Your task to perform on an android device: allow notifications from all sites in the chrome app Image 0: 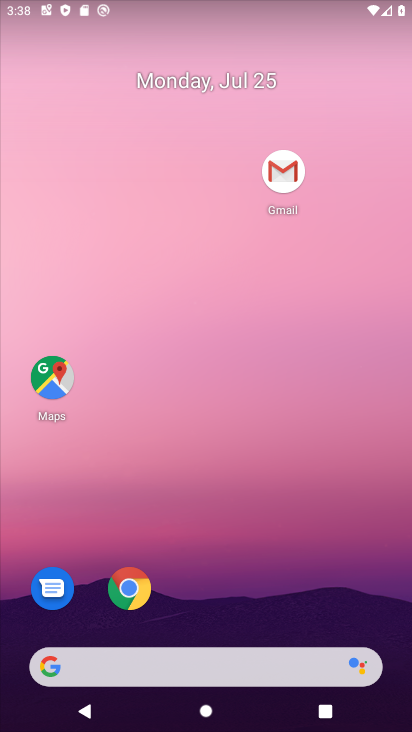
Step 0: drag from (250, 427) to (250, 45)
Your task to perform on an android device: allow notifications from all sites in the chrome app Image 1: 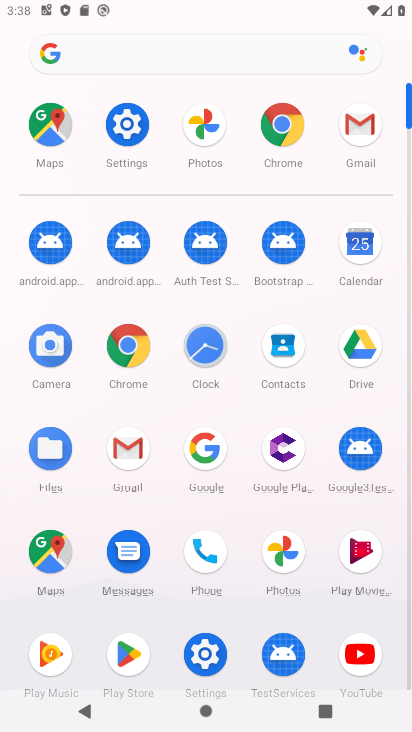
Step 1: click (128, 344)
Your task to perform on an android device: allow notifications from all sites in the chrome app Image 2: 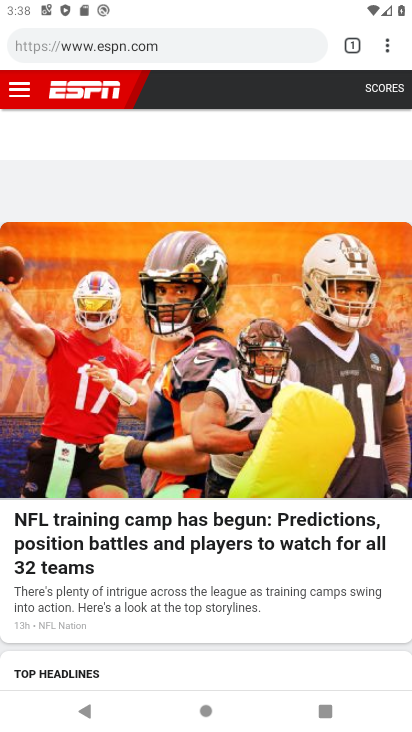
Step 2: drag from (393, 43) to (244, 541)
Your task to perform on an android device: allow notifications from all sites in the chrome app Image 3: 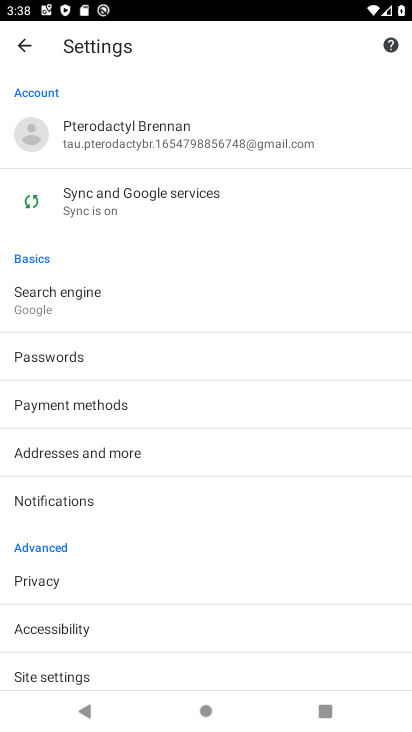
Step 3: drag from (324, 603) to (304, 313)
Your task to perform on an android device: allow notifications from all sites in the chrome app Image 4: 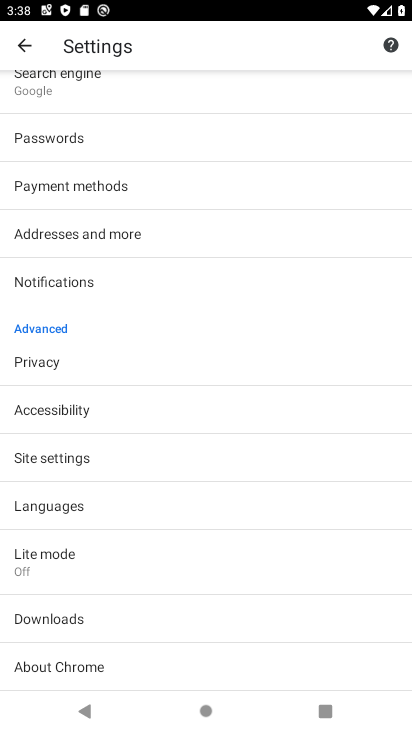
Step 4: click (83, 289)
Your task to perform on an android device: allow notifications from all sites in the chrome app Image 5: 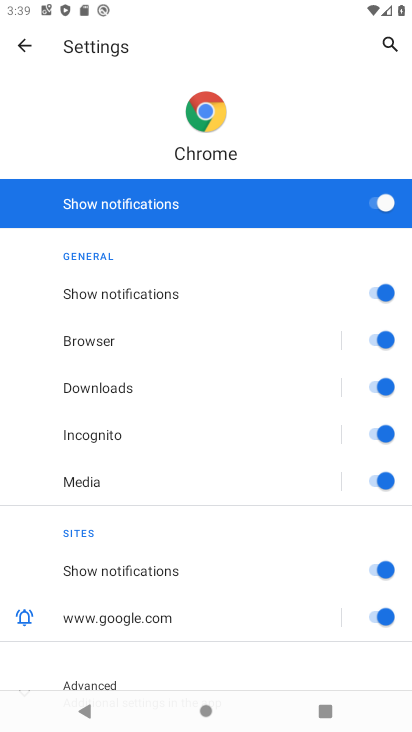
Step 5: task complete